Your task to perform on an android device: Open Youtube and go to the subscriptions tab Image 0: 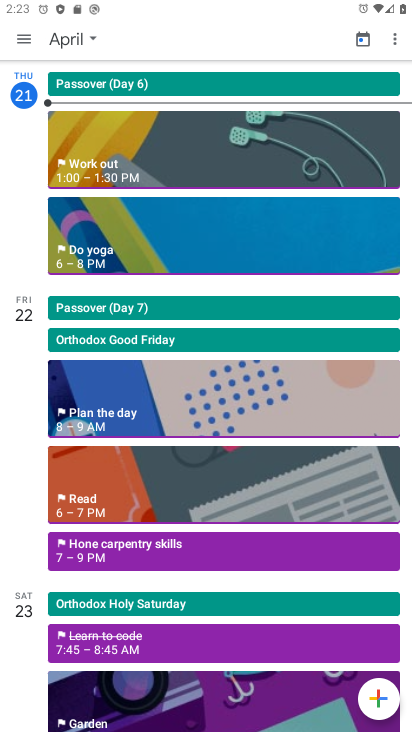
Step 0: press home button
Your task to perform on an android device: Open Youtube and go to the subscriptions tab Image 1: 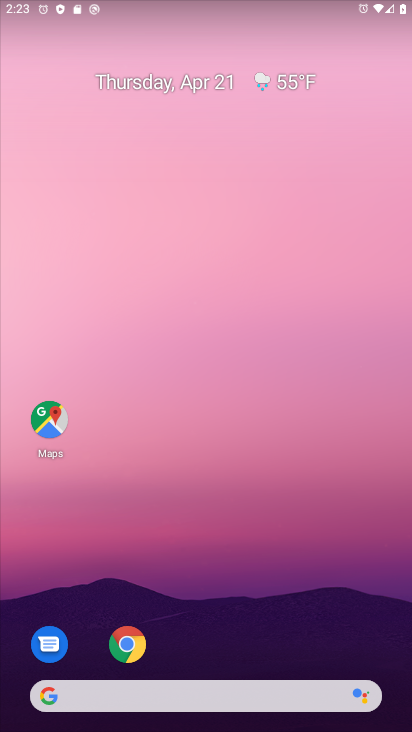
Step 1: drag from (214, 592) to (155, 25)
Your task to perform on an android device: Open Youtube and go to the subscriptions tab Image 2: 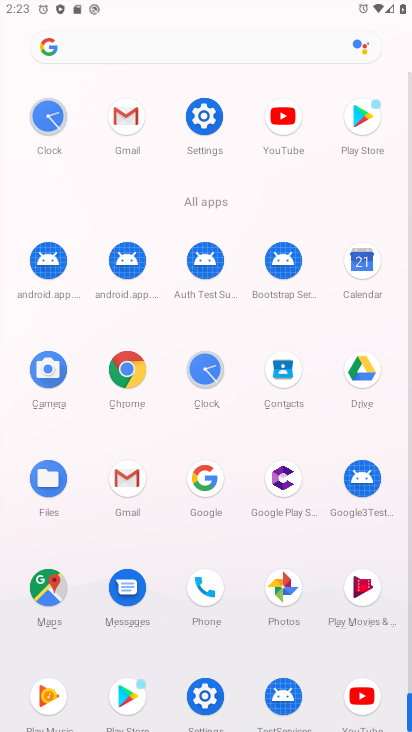
Step 2: click (284, 124)
Your task to perform on an android device: Open Youtube and go to the subscriptions tab Image 3: 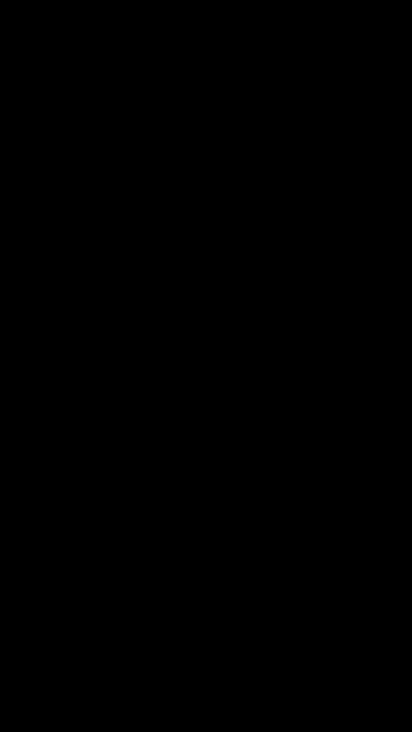
Step 3: press back button
Your task to perform on an android device: Open Youtube and go to the subscriptions tab Image 4: 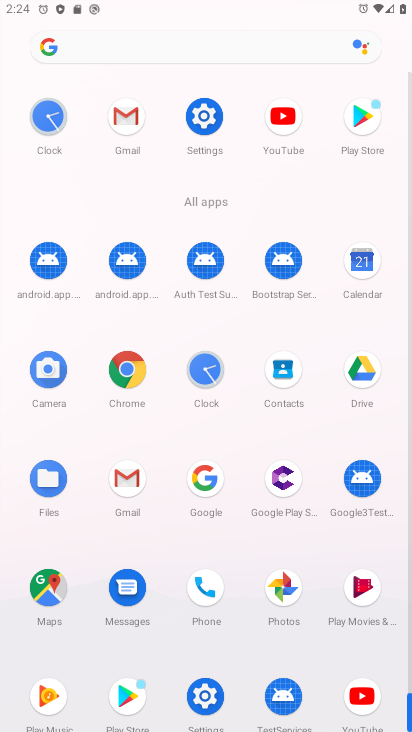
Step 4: click (364, 698)
Your task to perform on an android device: Open Youtube and go to the subscriptions tab Image 5: 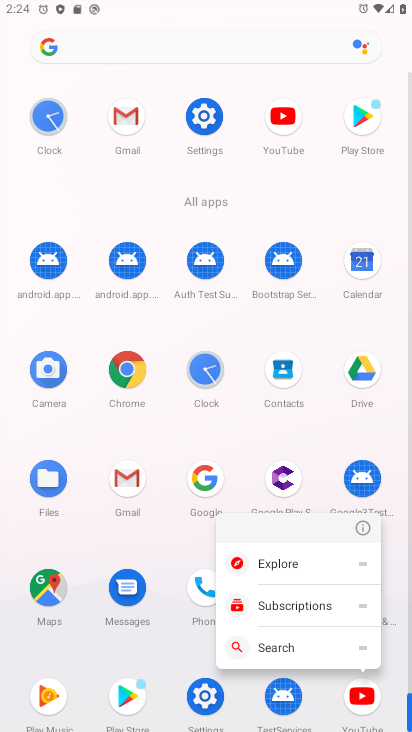
Step 5: click (319, 607)
Your task to perform on an android device: Open Youtube and go to the subscriptions tab Image 6: 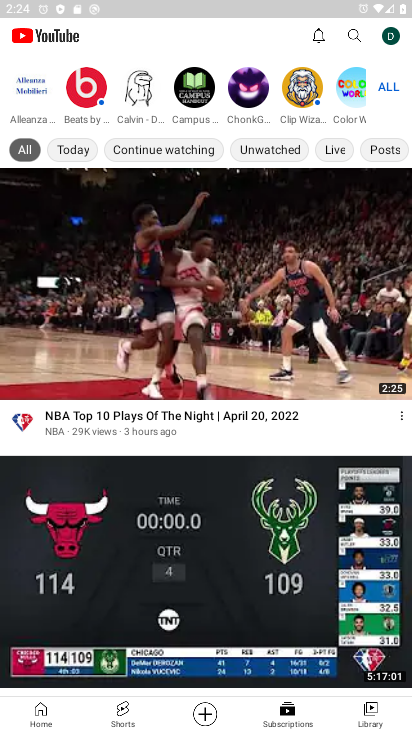
Step 6: click (288, 715)
Your task to perform on an android device: Open Youtube and go to the subscriptions tab Image 7: 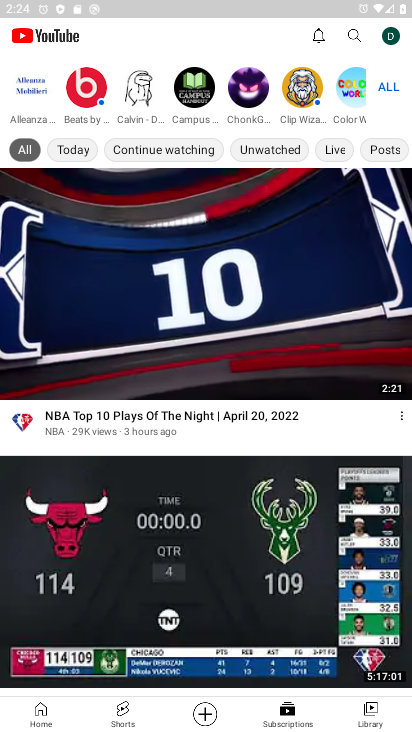
Step 7: task complete